Your task to perform on an android device: Open the calendar app, open the side menu, and click the "Day" option Image 0: 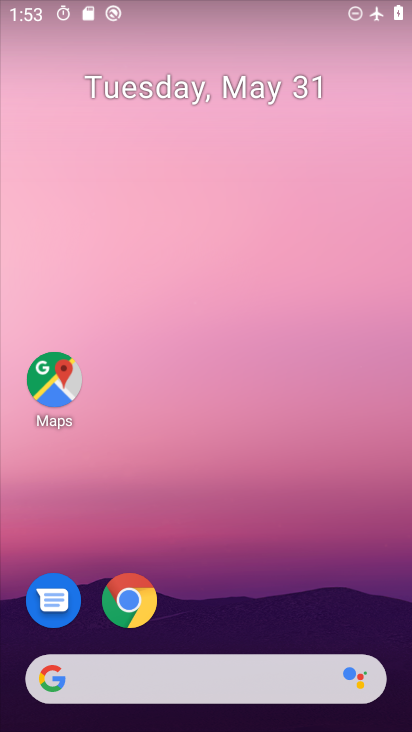
Step 0: click (212, 590)
Your task to perform on an android device: Open the calendar app, open the side menu, and click the "Day" option Image 1: 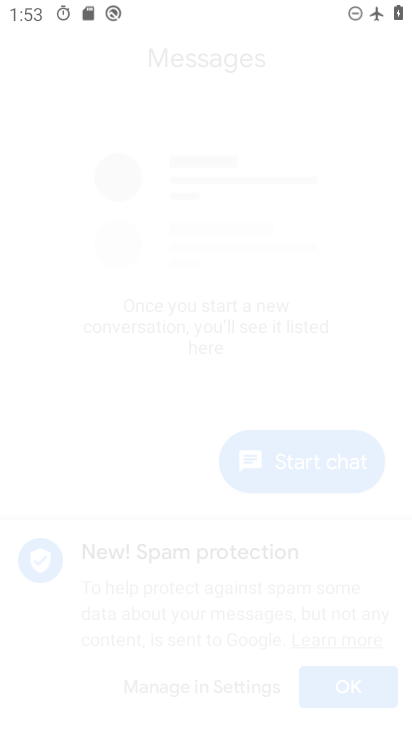
Step 1: drag from (200, 231) to (197, 74)
Your task to perform on an android device: Open the calendar app, open the side menu, and click the "Day" option Image 2: 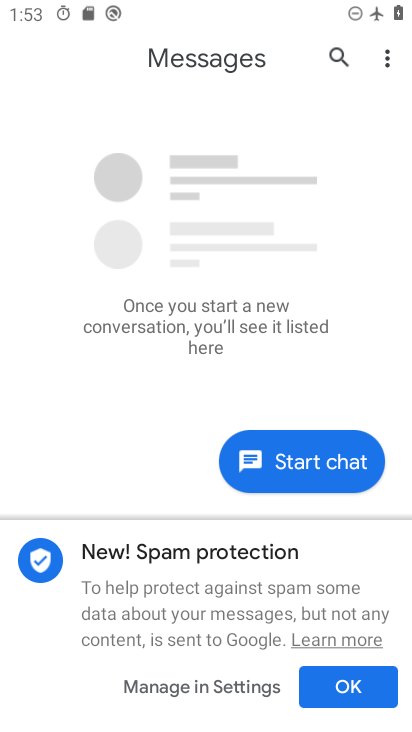
Step 2: press home button
Your task to perform on an android device: Open the calendar app, open the side menu, and click the "Day" option Image 3: 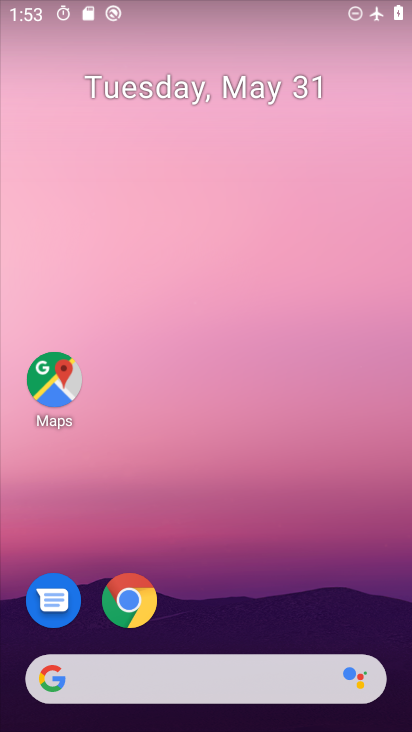
Step 3: drag from (252, 714) to (252, 385)
Your task to perform on an android device: Open the calendar app, open the side menu, and click the "Day" option Image 4: 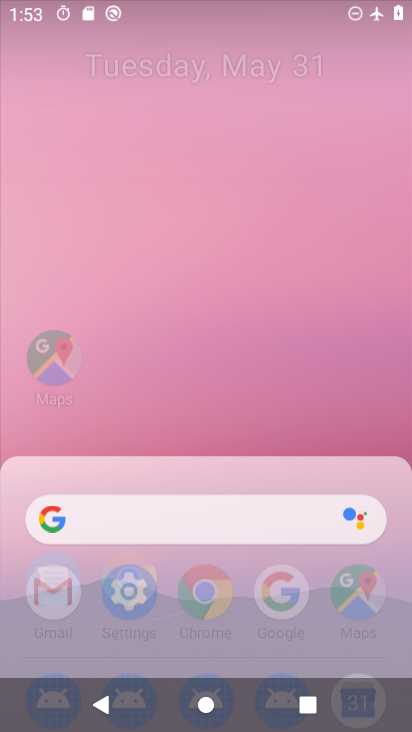
Step 4: click (247, 159)
Your task to perform on an android device: Open the calendar app, open the side menu, and click the "Day" option Image 5: 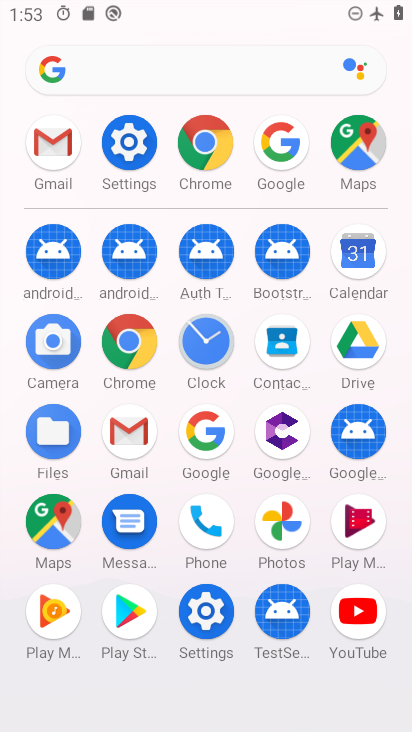
Step 5: click (351, 266)
Your task to perform on an android device: Open the calendar app, open the side menu, and click the "Day" option Image 6: 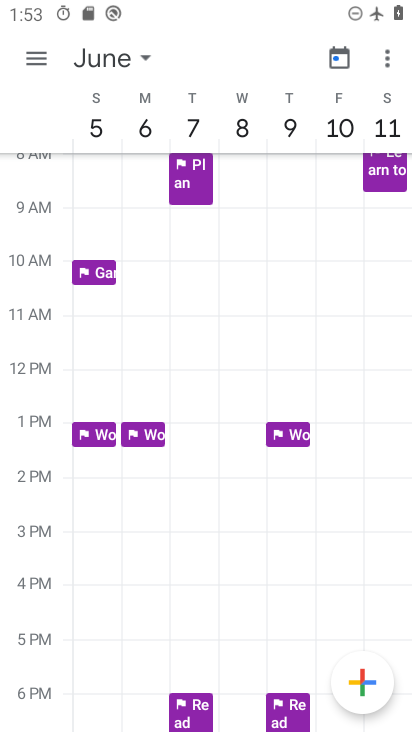
Step 6: click (29, 53)
Your task to perform on an android device: Open the calendar app, open the side menu, and click the "Day" option Image 7: 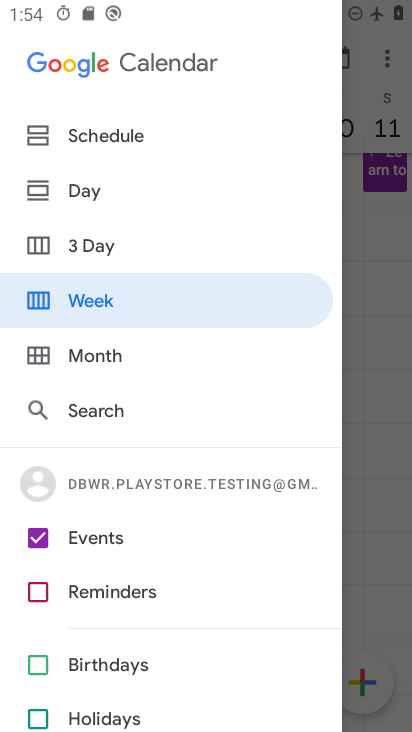
Step 7: click (89, 191)
Your task to perform on an android device: Open the calendar app, open the side menu, and click the "Day" option Image 8: 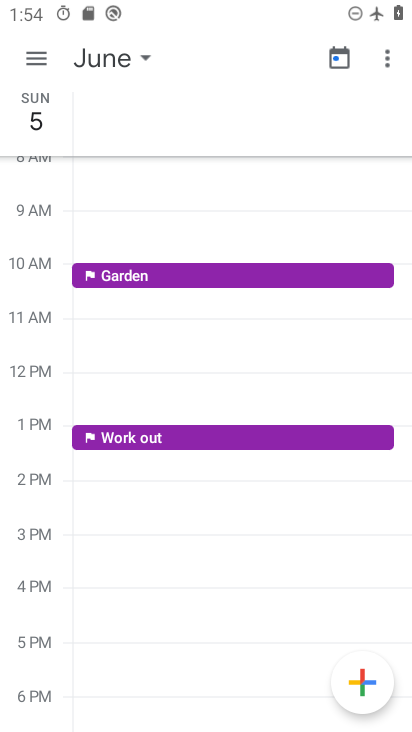
Step 8: task complete